Your task to perform on an android device: turn off location history Image 0: 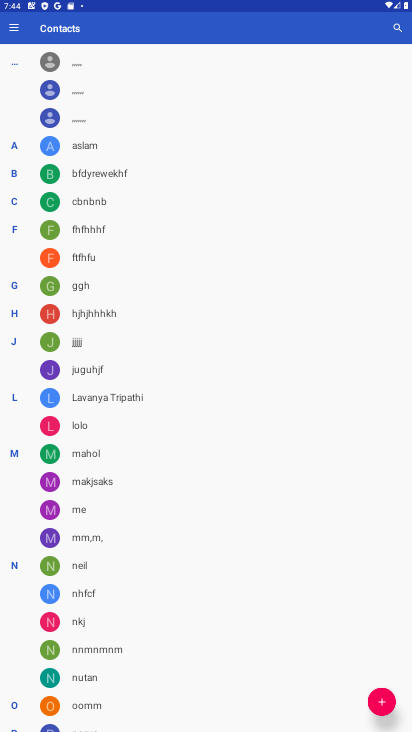
Step 0: press home button
Your task to perform on an android device: turn off location history Image 1: 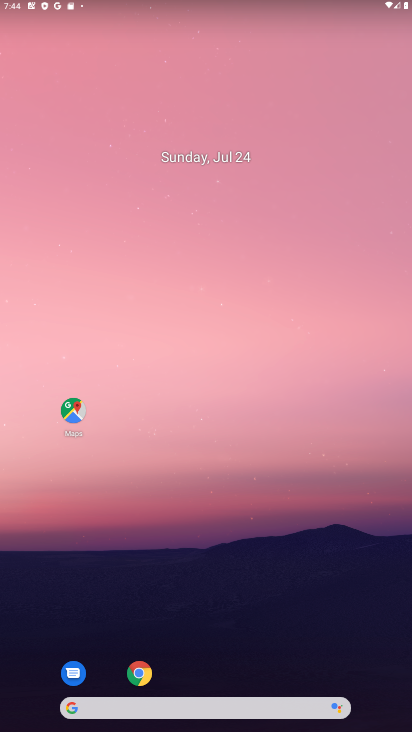
Step 1: drag from (21, 678) to (262, 46)
Your task to perform on an android device: turn off location history Image 2: 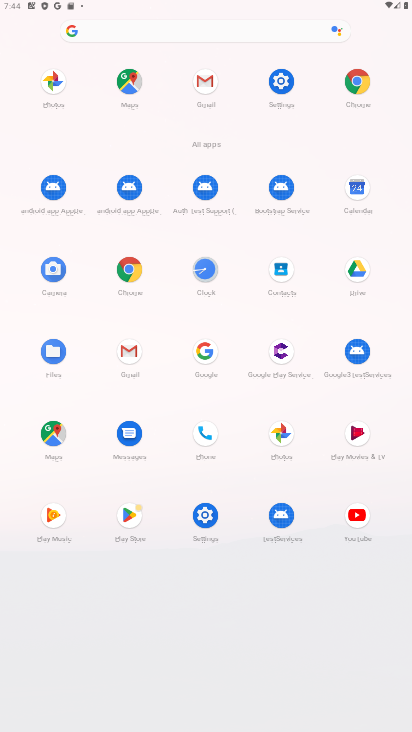
Step 2: click (210, 515)
Your task to perform on an android device: turn off location history Image 3: 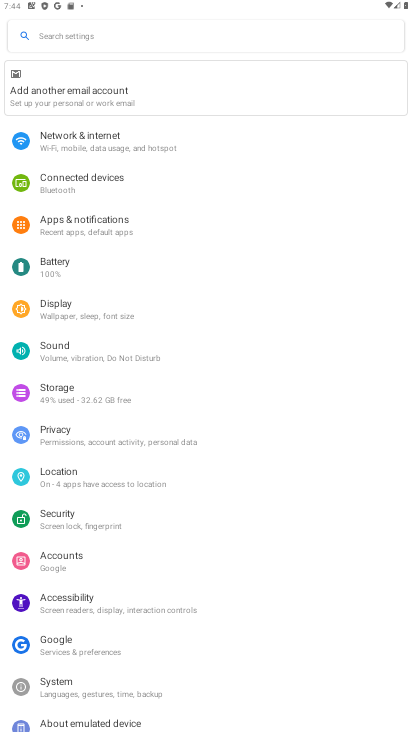
Step 3: click (65, 473)
Your task to perform on an android device: turn off location history Image 4: 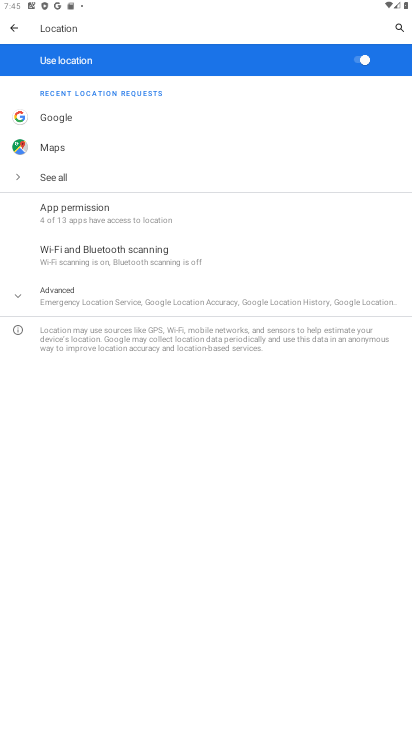
Step 4: click (63, 297)
Your task to perform on an android device: turn off location history Image 5: 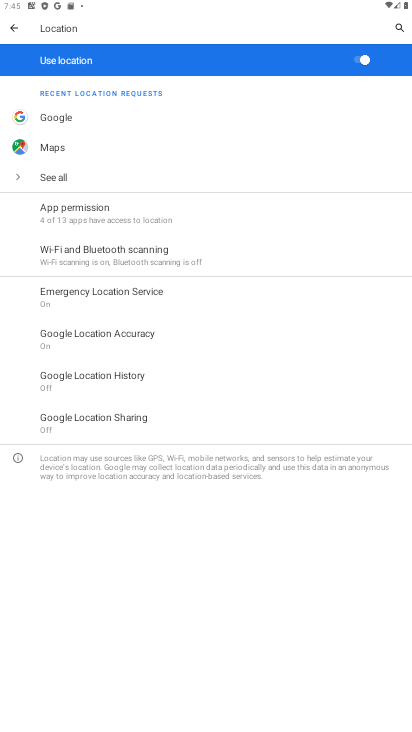
Step 5: task complete